Your task to perform on an android device: Open CNN.com Image 0: 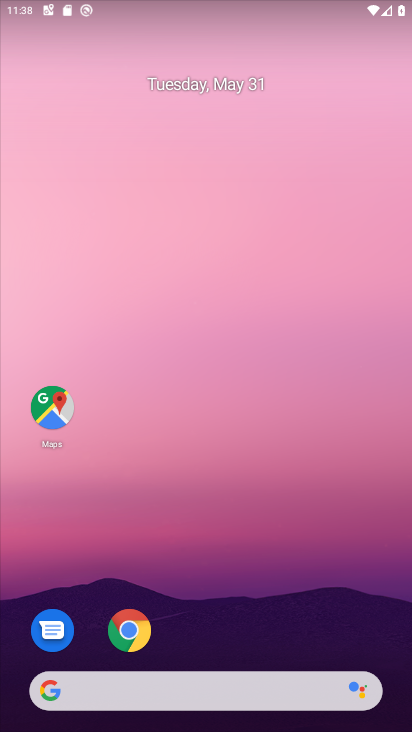
Step 0: click (115, 625)
Your task to perform on an android device: Open CNN.com Image 1: 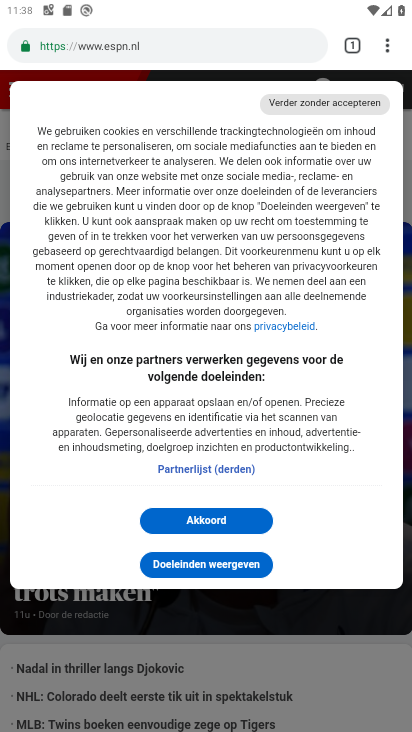
Step 1: click (392, 34)
Your task to perform on an android device: Open CNN.com Image 2: 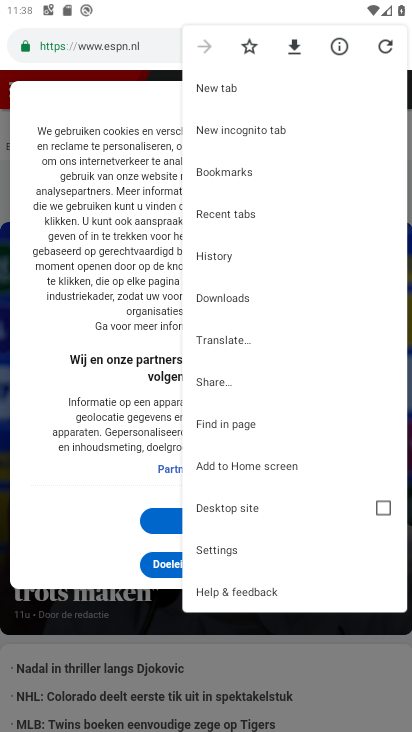
Step 2: click (239, 92)
Your task to perform on an android device: Open CNN.com Image 3: 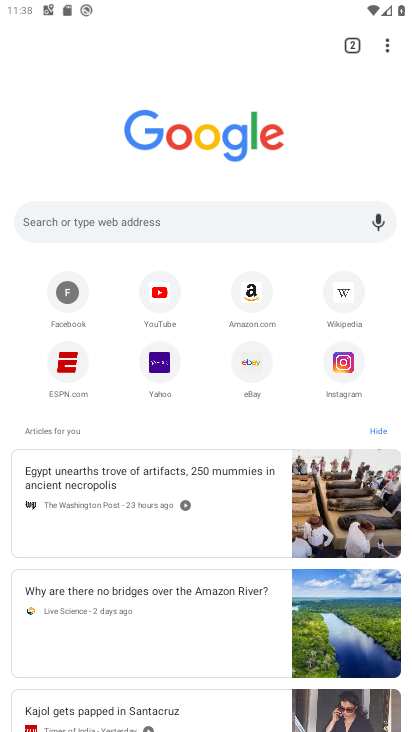
Step 3: click (165, 218)
Your task to perform on an android device: Open CNN.com Image 4: 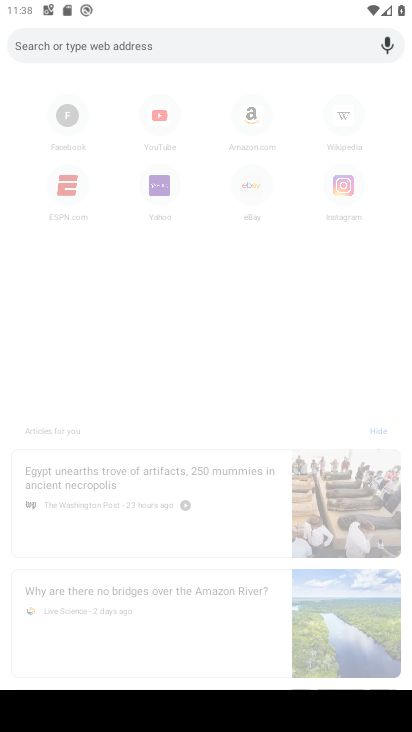
Step 4: type "CNN.com"
Your task to perform on an android device: Open CNN.com Image 5: 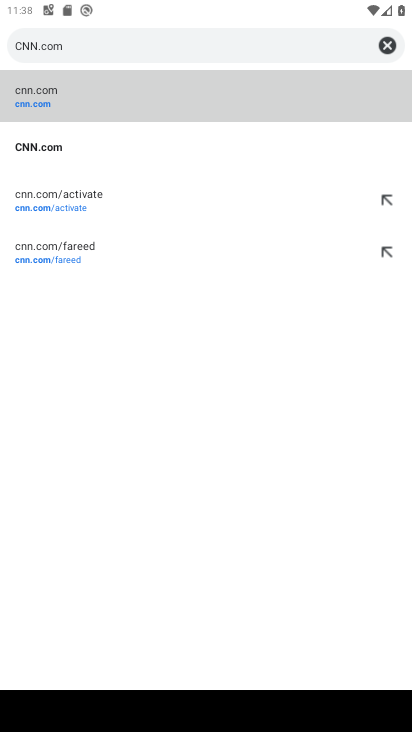
Step 5: click (95, 101)
Your task to perform on an android device: Open CNN.com Image 6: 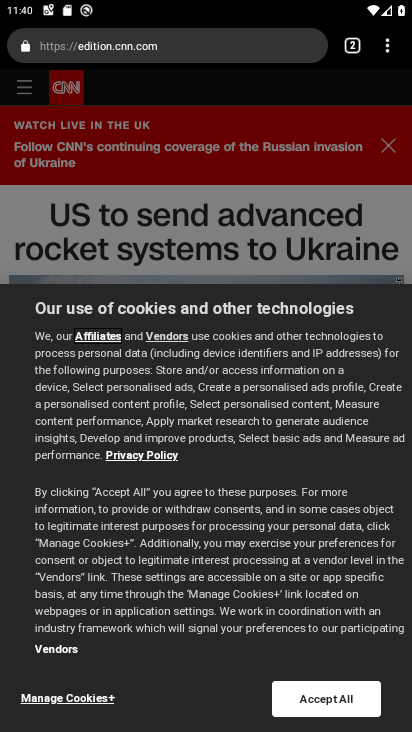
Step 6: task complete